Your task to perform on an android device: Toggle the flashlight Image 0: 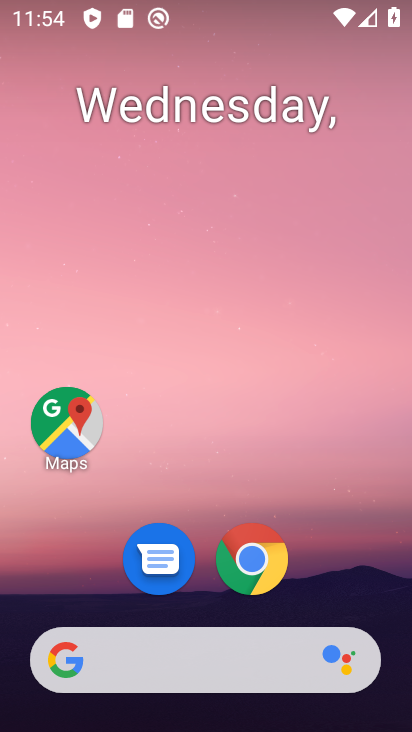
Step 0: drag from (95, 428) to (118, 7)
Your task to perform on an android device: Toggle the flashlight Image 1: 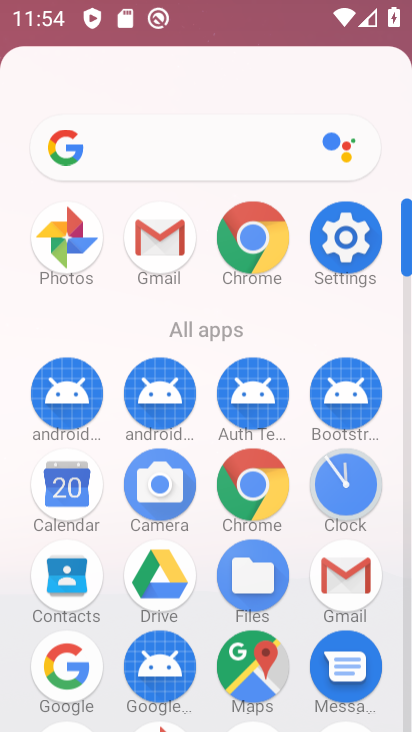
Step 1: click (346, 359)
Your task to perform on an android device: Toggle the flashlight Image 2: 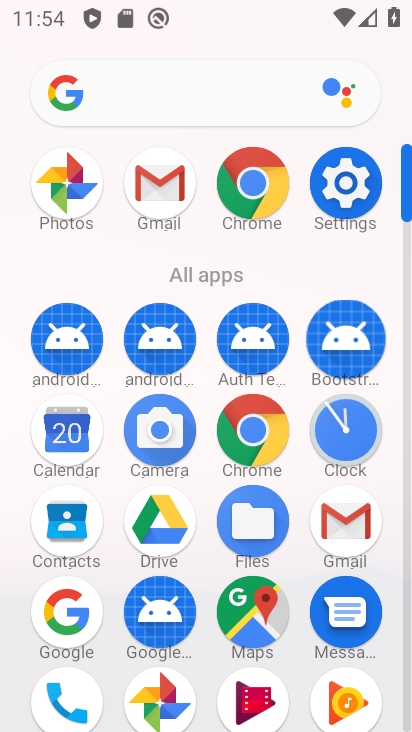
Step 2: click (340, 205)
Your task to perform on an android device: Toggle the flashlight Image 3: 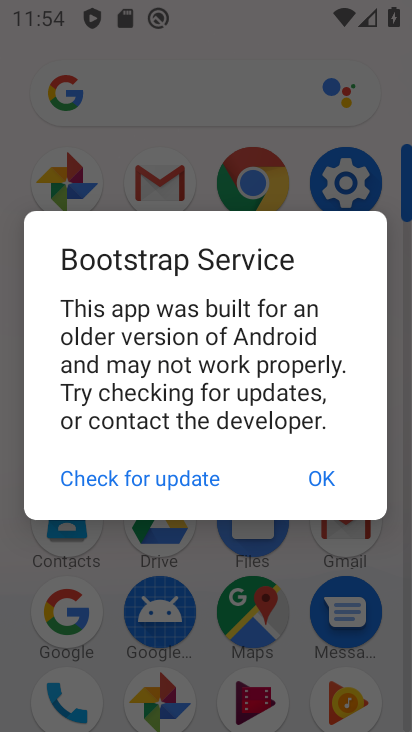
Step 3: click (313, 473)
Your task to perform on an android device: Toggle the flashlight Image 4: 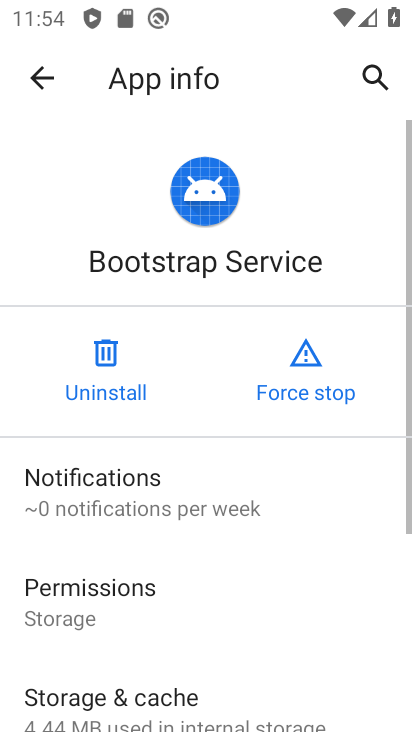
Step 4: press back button
Your task to perform on an android device: Toggle the flashlight Image 5: 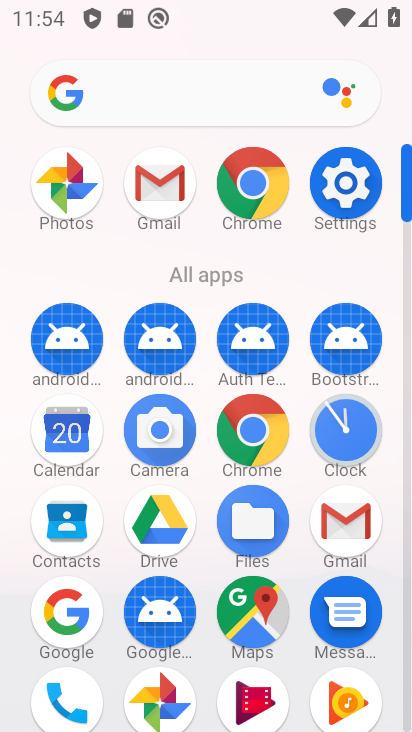
Step 5: click (356, 186)
Your task to perform on an android device: Toggle the flashlight Image 6: 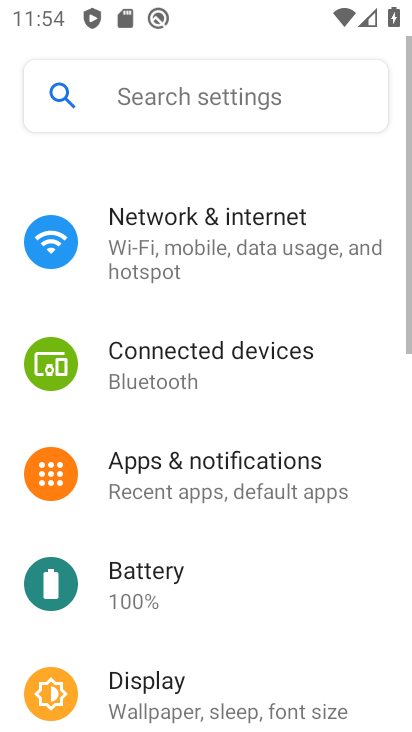
Step 6: click (144, 104)
Your task to perform on an android device: Toggle the flashlight Image 7: 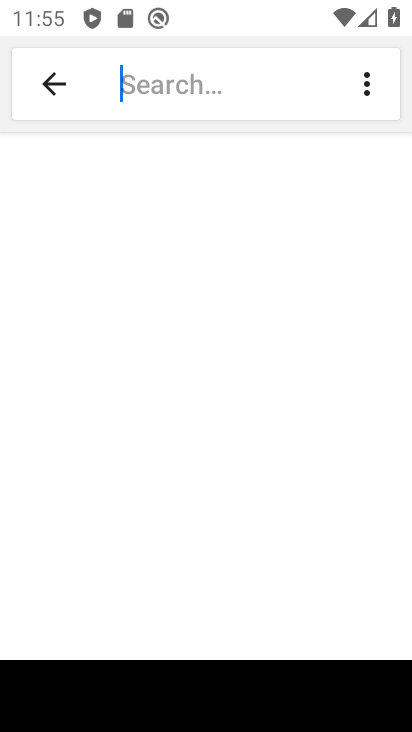
Step 7: type "flashlight"
Your task to perform on an android device: Toggle the flashlight Image 8: 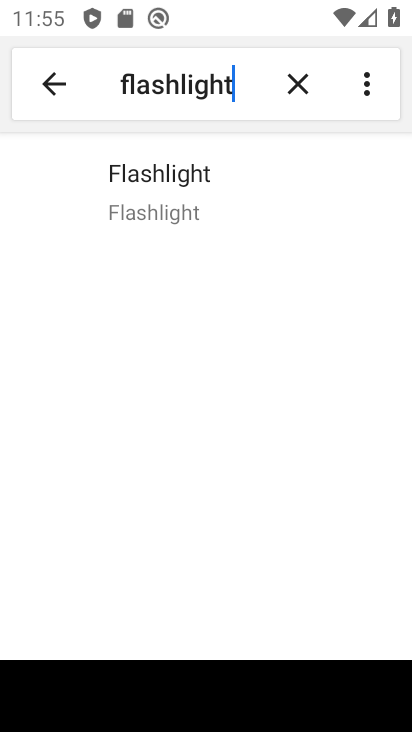
Step 8: click (154, 203)
Your task to perform on an android device: Toggle the flashlight Image 9: 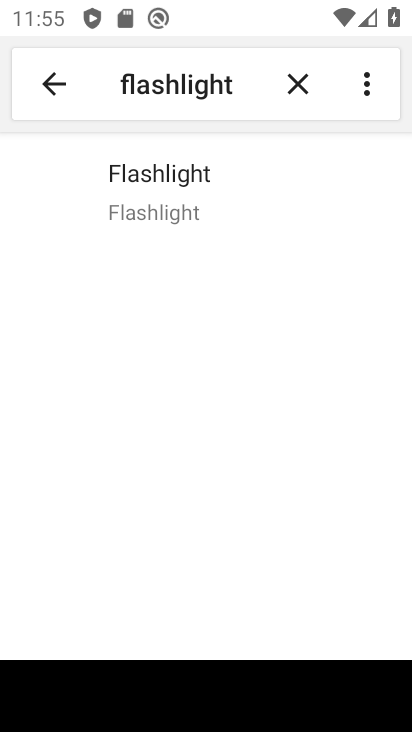
Step 9: task complete